Your task to perform on an android device: star an email in the gmail app Image 0: 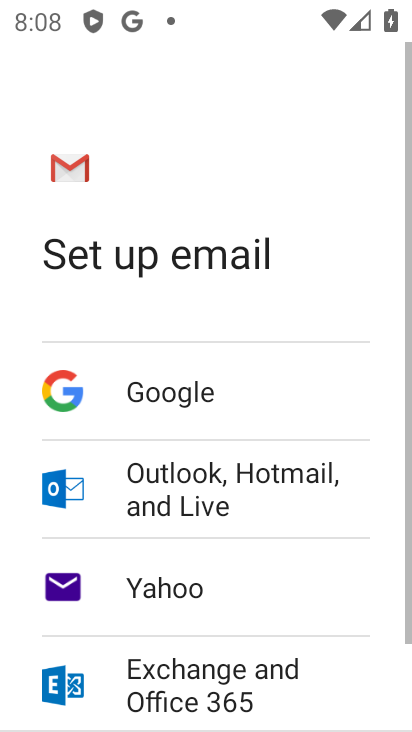
Step 0: press home button
Your task to perform on an android device: star an email in the gmail app Image 1: 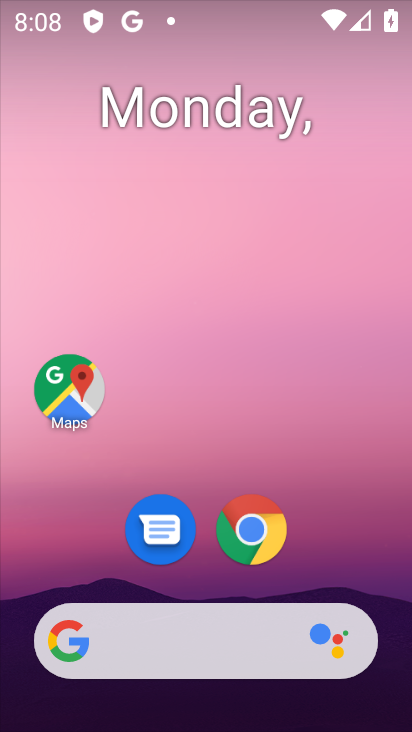
Step 1: drag from (264, 519) to (308, 87)
Your task to perform on an android device: star an email in the gmail app Image 2: 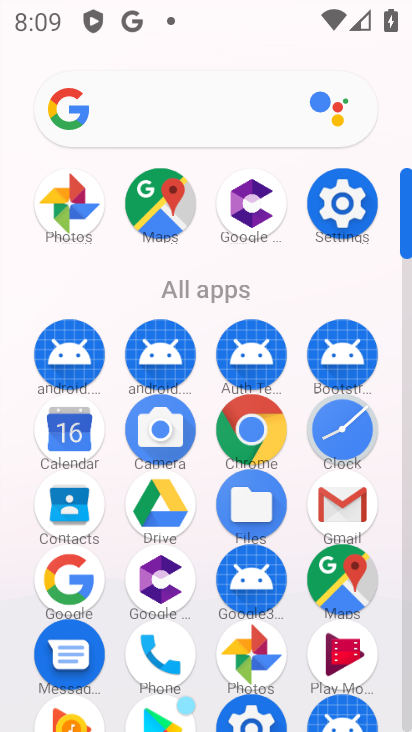
Step 2: click (341, 480)
Your task to perform on an android device: star an email in the gmail app Image 3: 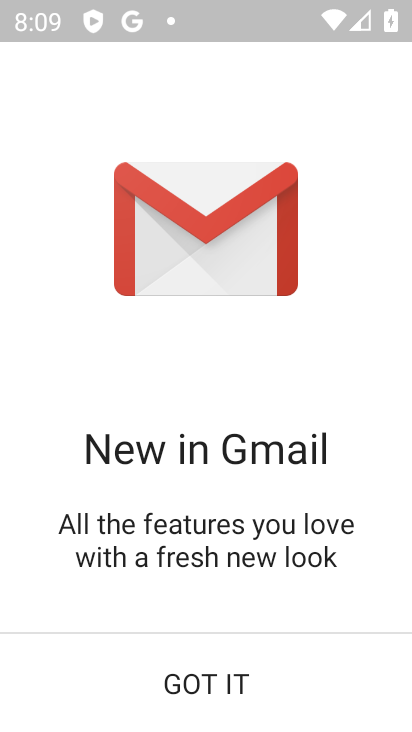
Step 3: click (205, 675)
Your task to perform on an android device: star an email in the gmail app Image 4: 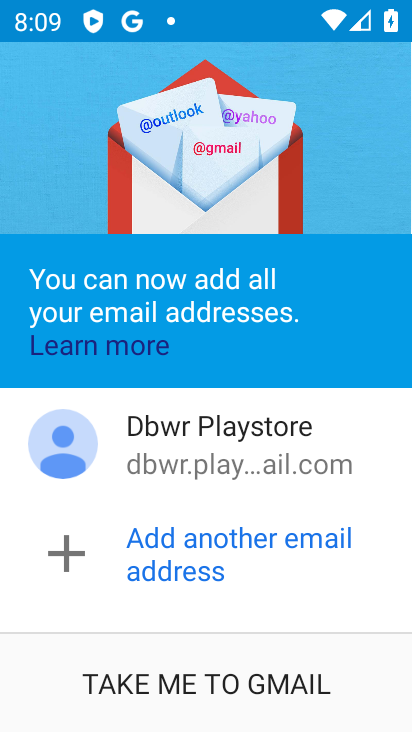
Step 4: click (204, 674)
Your task to perform on an android device: star an email in the gmail app Image 5: 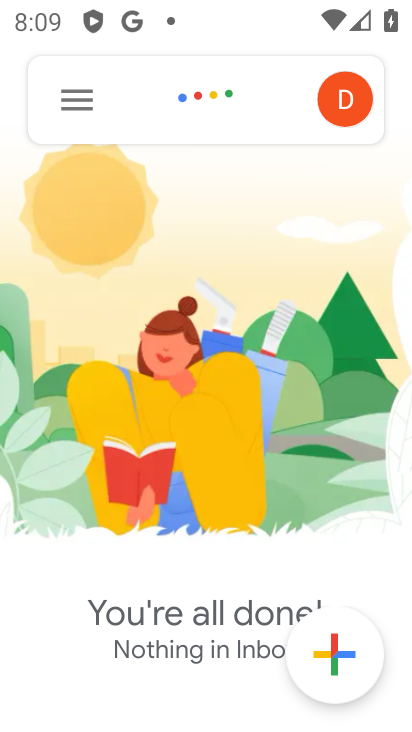
Step 5: click (89, 113)
Your task to perform on an android device: star an email in the gmail app Image 6: 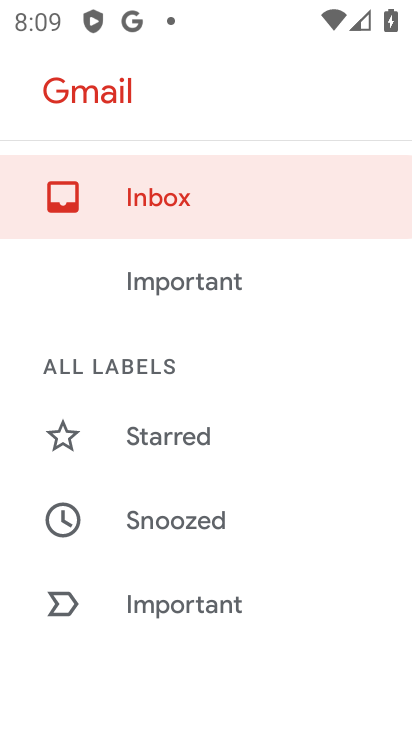
Step 6: click (167, 437)
Your task to perform on an android device: star an email in the gmail app Image 7: 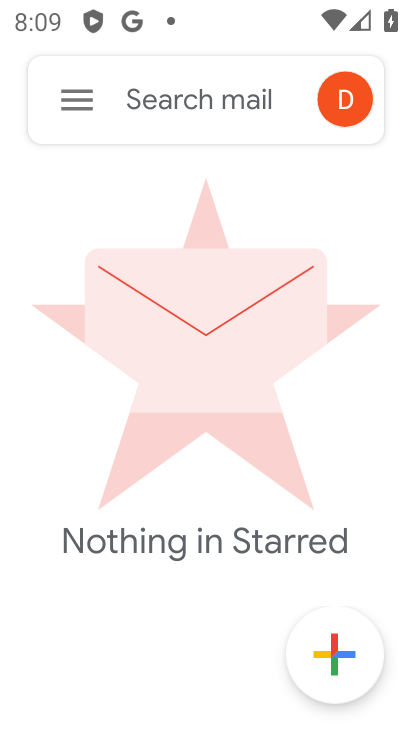
Step 7: task complete